Your task to perform on an android device: delete the emails in spam in the gmail app Image 0: 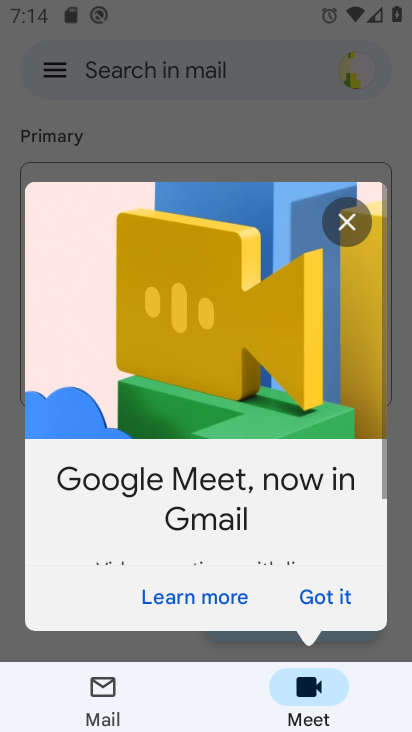
Step 0: press back button
Your task to perform on an android device: delete the emails in spam in the gmail app Image 1: 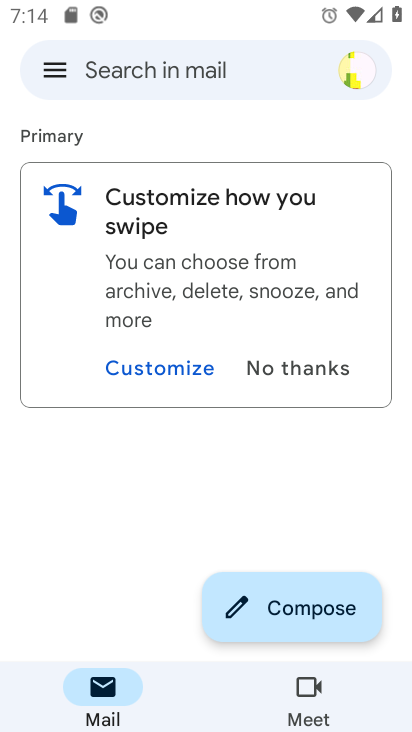
Step 1: press back button
Your task to perform on an android device: delete the emails in spam in the gmail app Image 2: 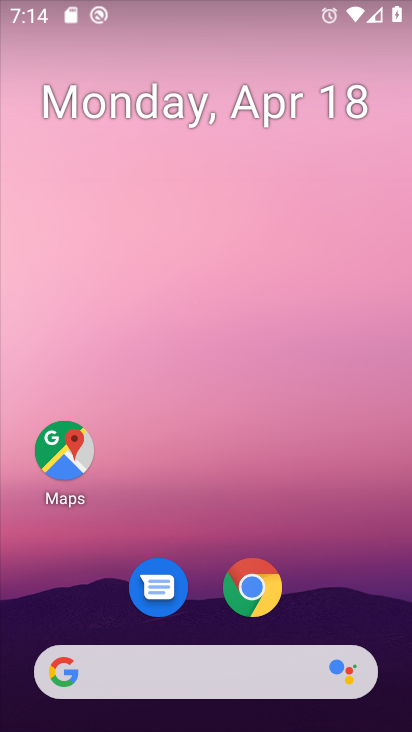
Step 2: drag from (354, 593) to (226, 4)
Your task to perform on an android device: delete the emails in spam in the gmail app Image 3: 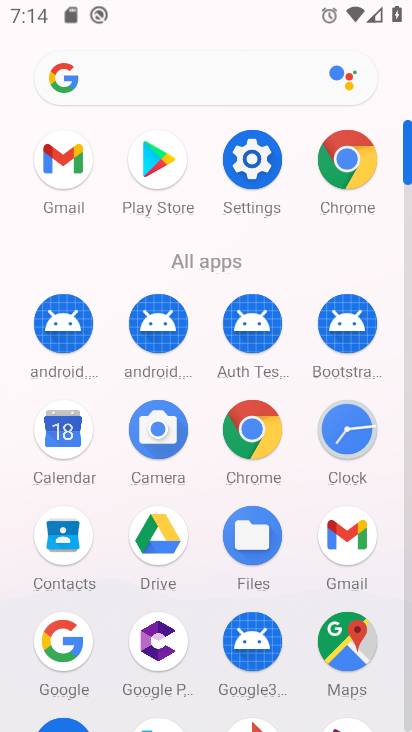
Step 3: click (97, 183)
Your task to perform on an android device: delete the emails in spam in the gmail app Image 4: 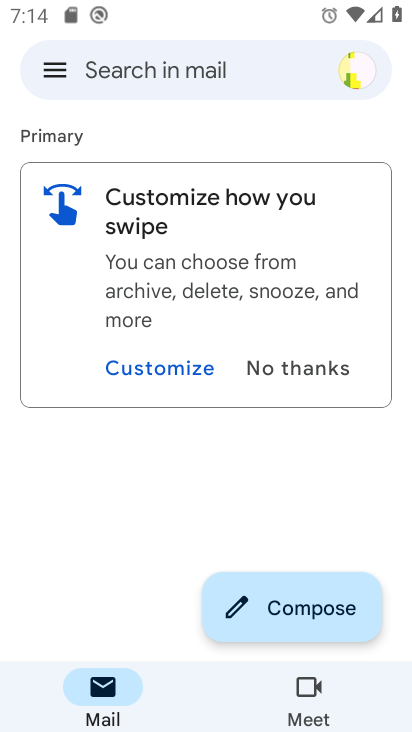
Step 4: click (68, 67)
Your task to perform on an android device: delete the emails in spam in the gmail app Image 5: 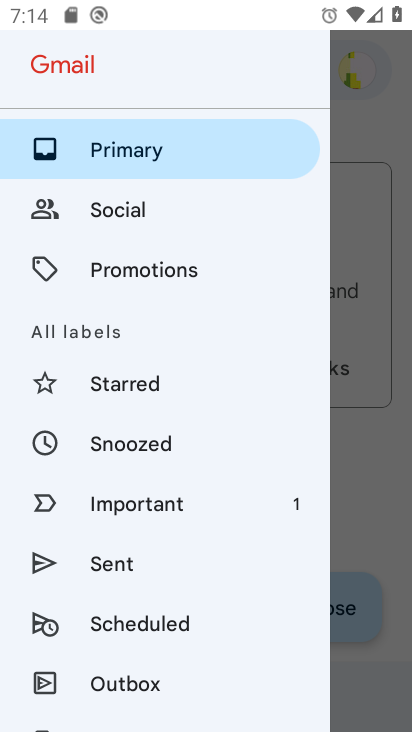
Step 5: drag from (84, 545) to (126, 294)
Your task to perform on an android device: delete the emails in spam in the gmail app Image 6: 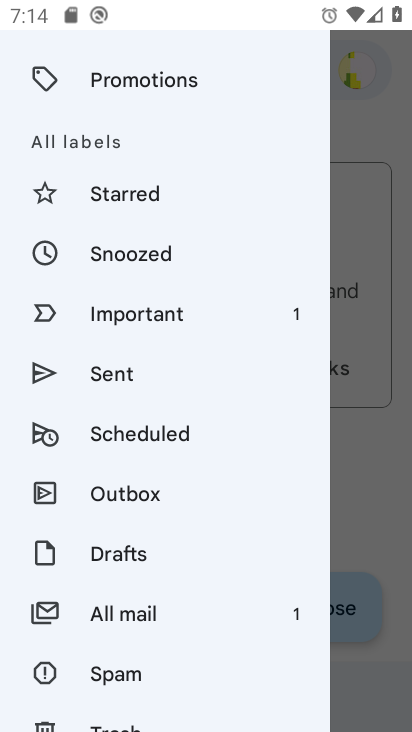
Step 6: drag from (117, 613) to (140, 355)
Your task to perform on an android device: delete the emails in spam in the gmail app Image 7: 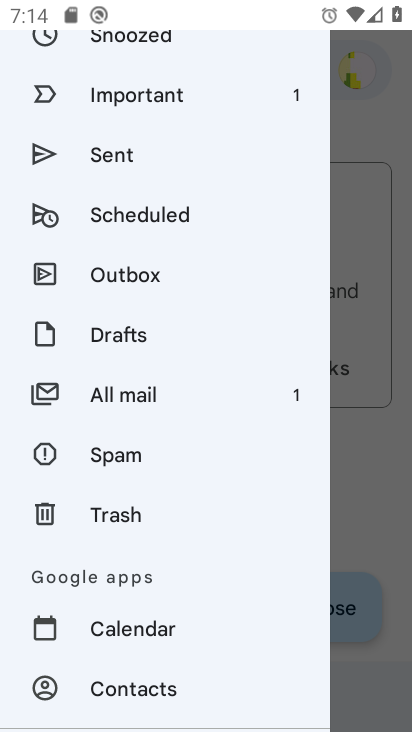
Step 7: click (103, 473)
Your task to perform on an android device: delete the emails in spam in the gmail app Image 8: 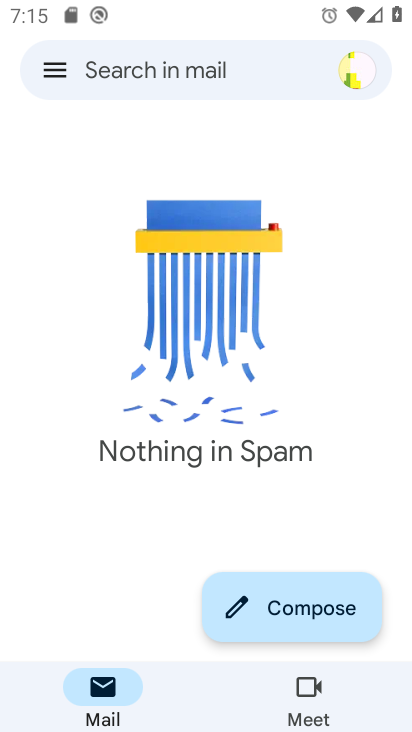
Step 8: task complete